Your task to perform on an android device: Open battery settings Image 0: 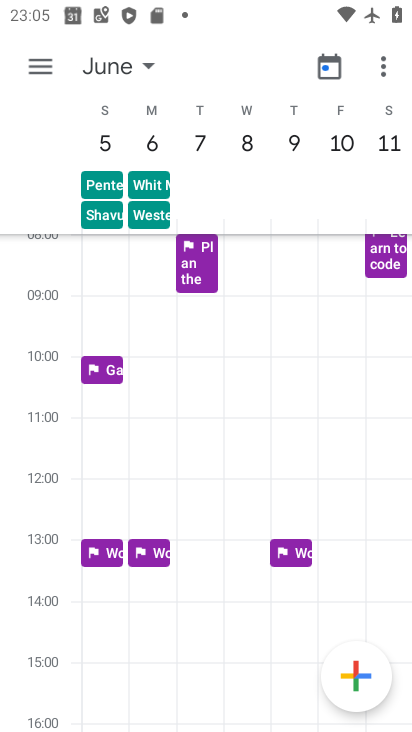
Step 0: press home button
Your task to perform on an android device: Open battery settings Image 1: 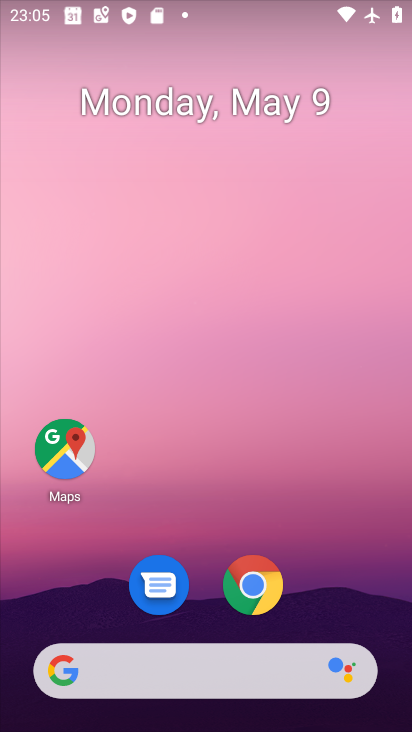
Step 1: drag from (288, 530) to (280, 27)
Your task to perform on an android device: Open battery settings Image 2: 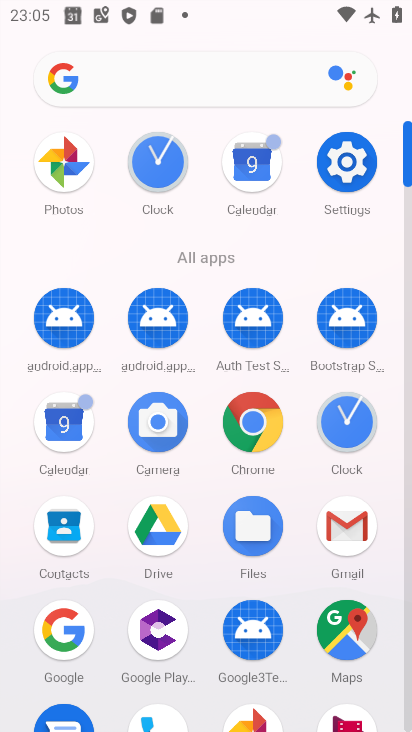
Step 2: click (354, 163)
Your task to perform on an android device: Open battery settings Image 3: 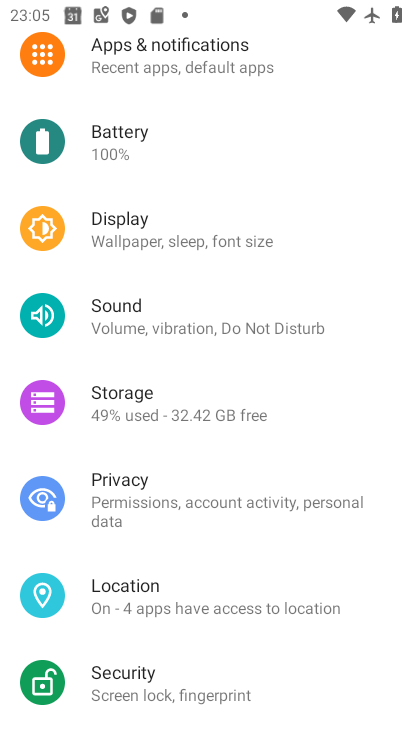
Step 3: click (193, 140)
Your task to perform on an android device: Open battery settings Image 4: 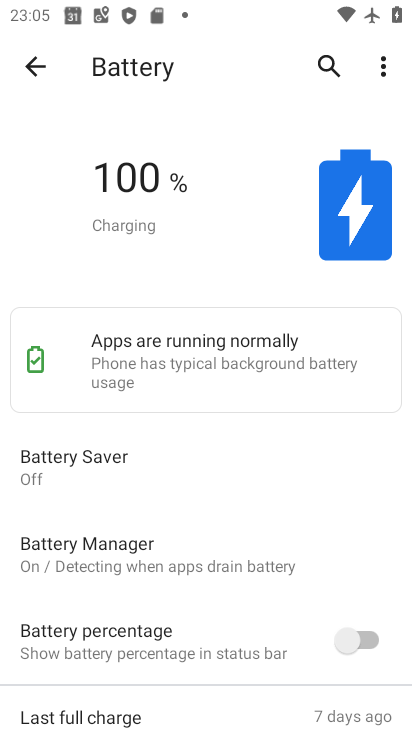
Step 4: task complete